Your task to perform on an android device: create a new album in the google photos Image 0: 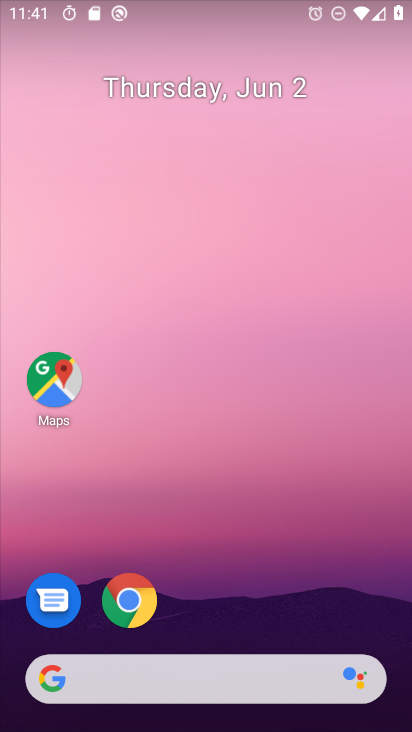
Step 0: drag from (245, 595) to (233, 167)
Your task to perform on an android device: create a new album in the google photos Image 1: 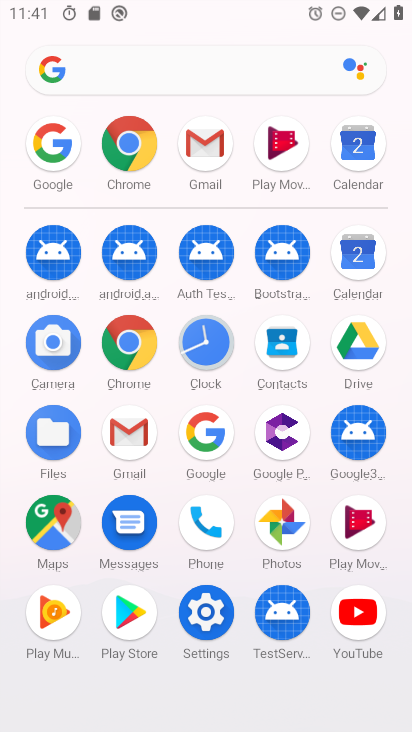
Step 1: click (285, 521)
Your task to perform on an android device: create a new album in the google photos Image 2: 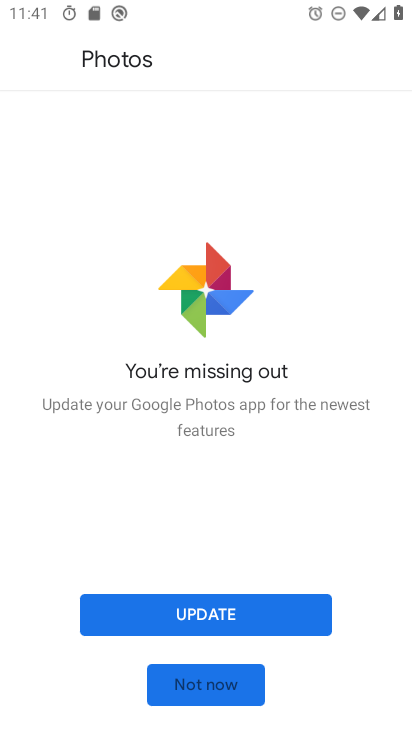
Step 2: click (195, 621)
Your task to perform on an android device: create a new album in the google photos Image 3: 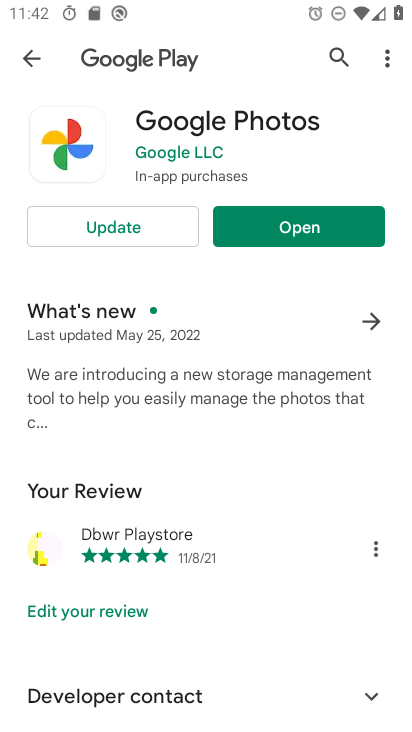
Step 3: click (88, 225)
Your task to perform on an android device: create a new album in the google photos Image 4: 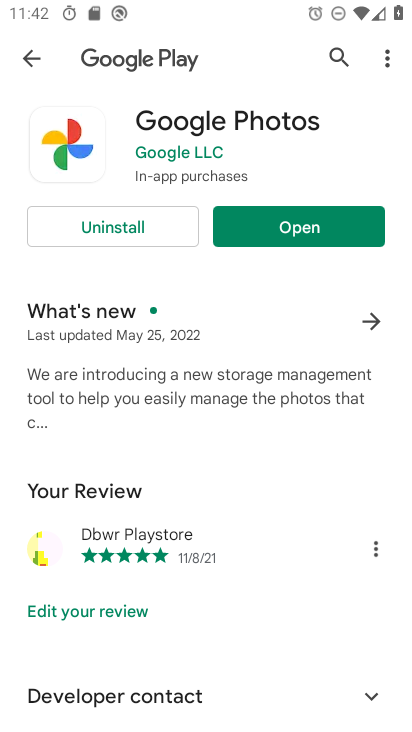
Step 4: click (272, 233)
Your task to perform on an android device: create a new album in the google photos Image 5: 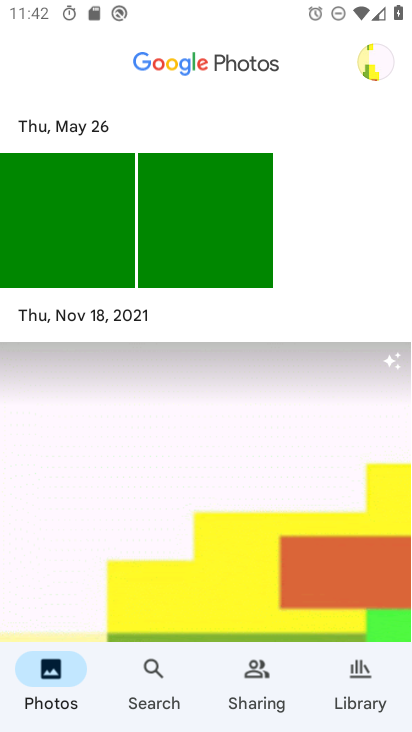
Step 5: click (187, 536)
Your task to perform on an android device: create a new album in the google photos Image 6: 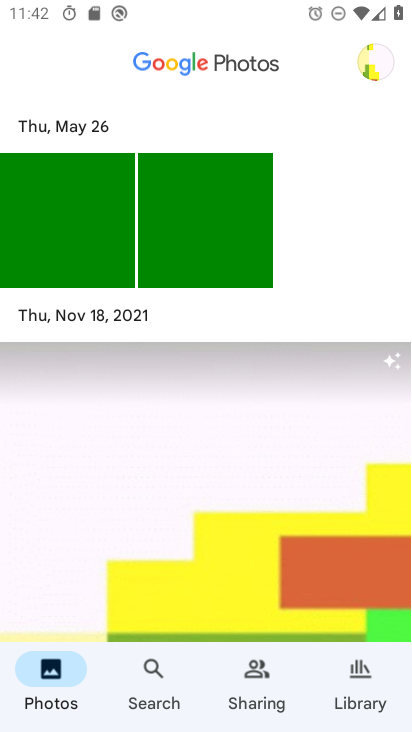
Step 6: click (352, 681)
Your task to perform on an android device: create a new album in the google photos Image 7: 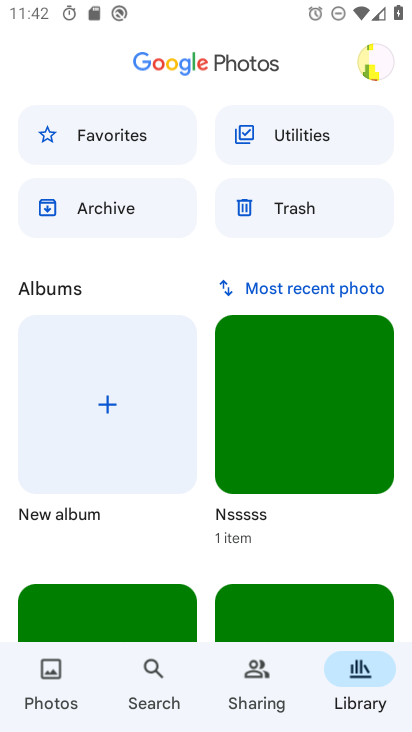
Step 7: click (107, 410)
Your task to perform on an android device: create a new album in the google photos Image 8: 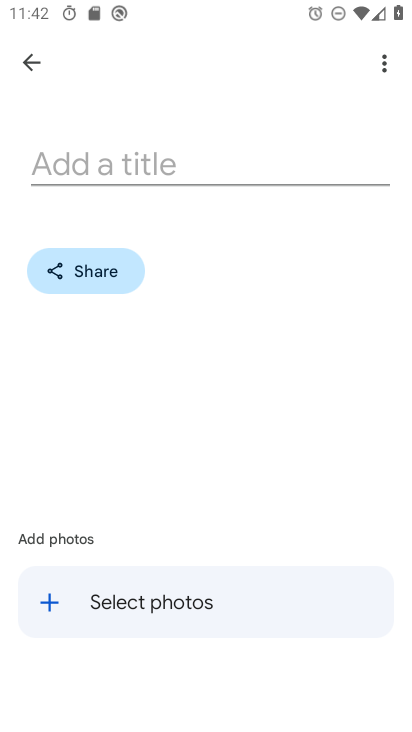
Step 8: click (231, 166)
Your task to perform on an android device: create a new album in the google photos Image 9: 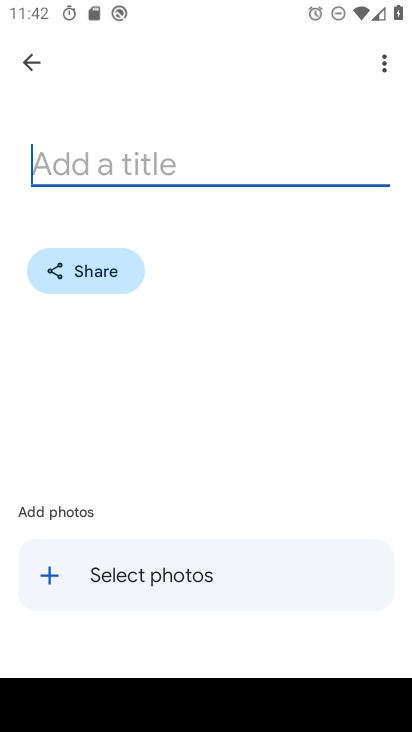
Step 9: click (160, 170)
Your task to perform on an android device: create a new album in the google photos Image 10: 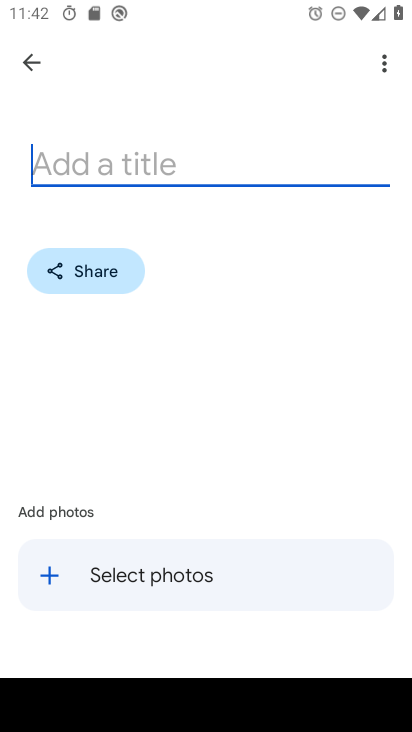
Step 10: type "fjfkg"
Your task to perform on an android device: create a new album in the google photos Image 11: 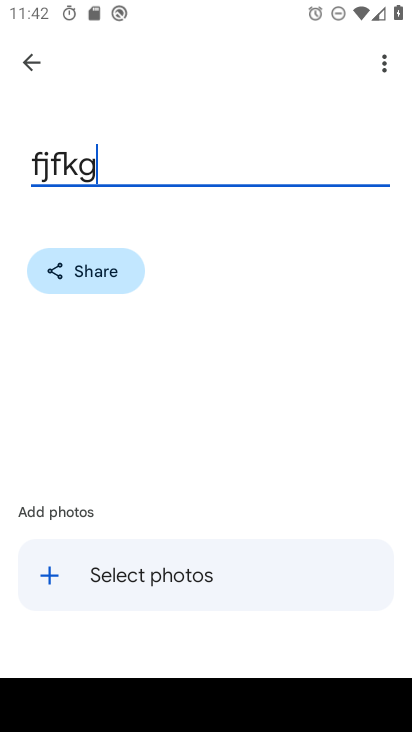
Step 11: click (46, 571)
Your task to perform on an android device: create a new album in the google photos Image 12: 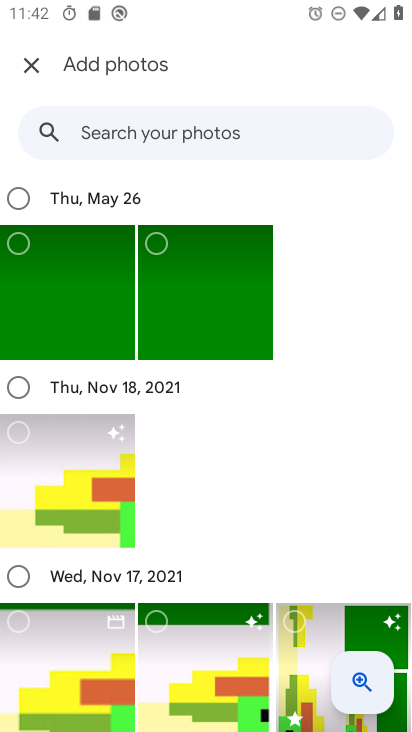
Step 12: click (42, 465)
Your task to perform on an android device: create a new album in the google photos Image 13: 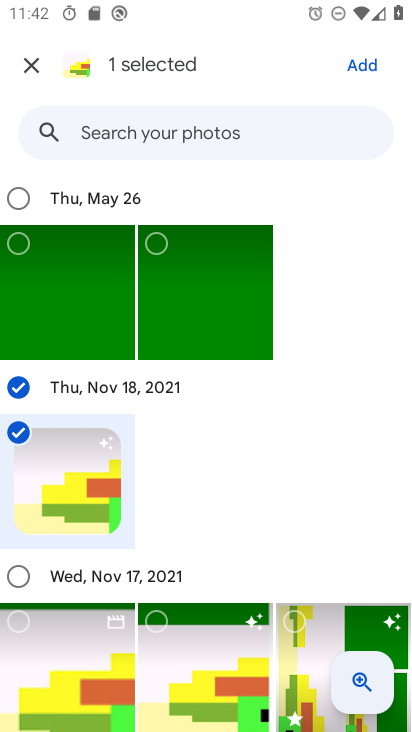
Step 13: click (364, 70)
Your task to perform on an android device: create a new album in the google photos Image 14: 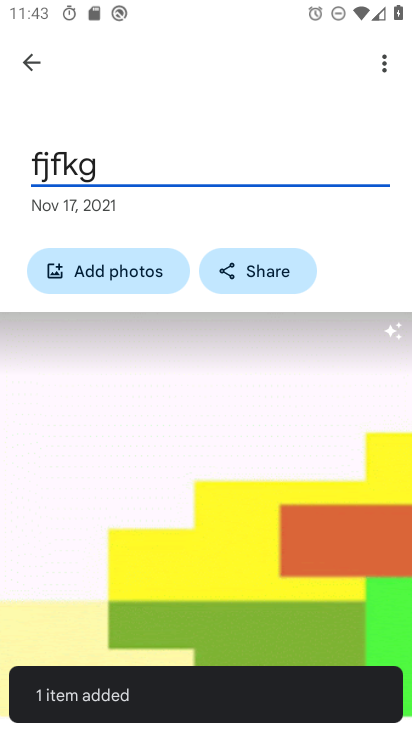
Step 14: task complete